Your task to perform on an android device: Show me popular games on the Play Store Image 0: 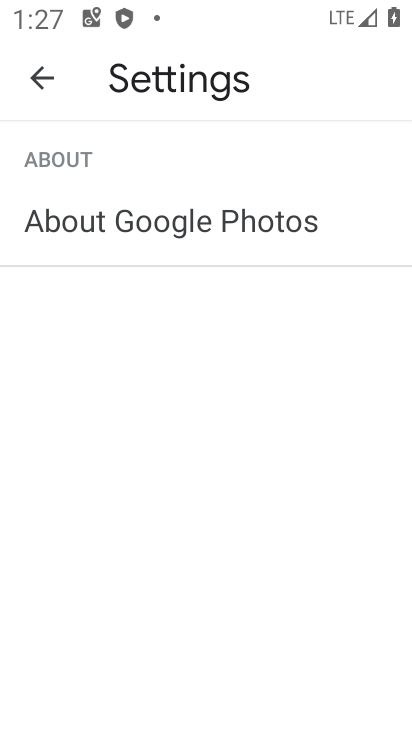
Step 0: press home button
Your task to perform on an android device: Show me popular games on the Play Store Image 1: 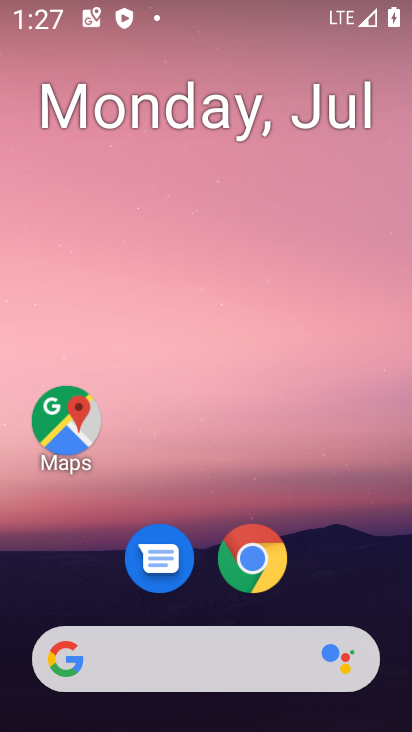
Step 1: drag from (356, 554) to (357, 114)
Your task to perform on an android device: Show me popular games on the Play Store Image 2: 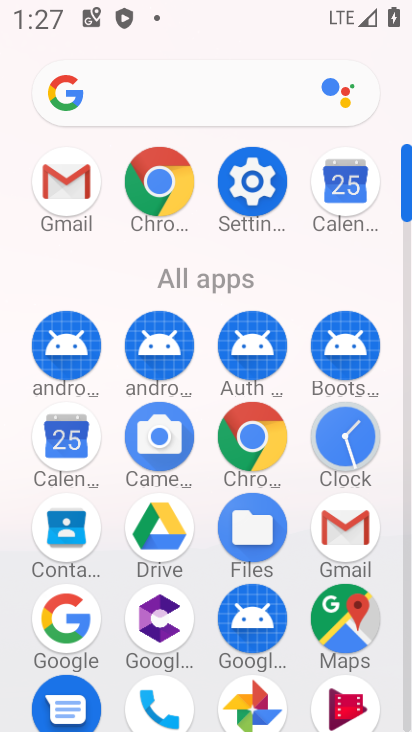
Step 2: drag from (392, 633) to (384, 373)
Your task to perform on an android device: Show me popular games on the Play Store Image 3: 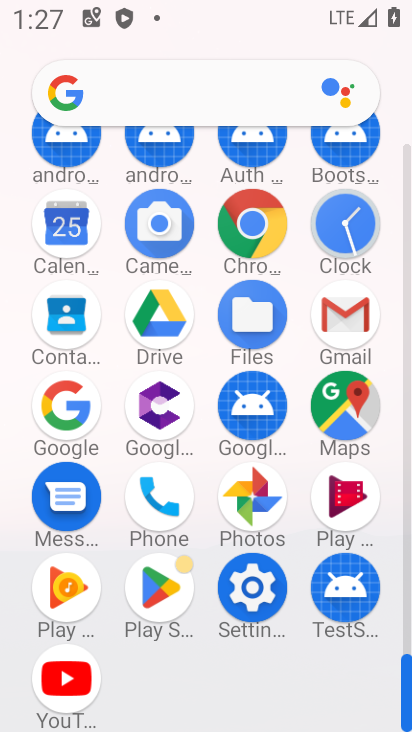
Step 3: click (170, 575)
Your task to perform on an android device: Show me popular games on the Play Store Image 4: 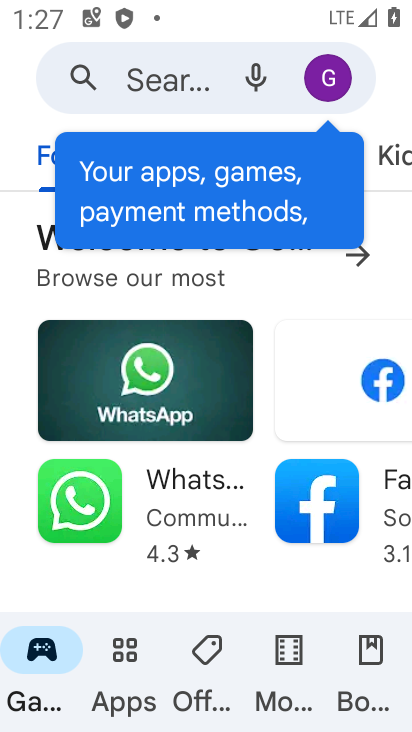
Step 4: task complete